Your task to perform on an android device: Go to display settings Image 0: 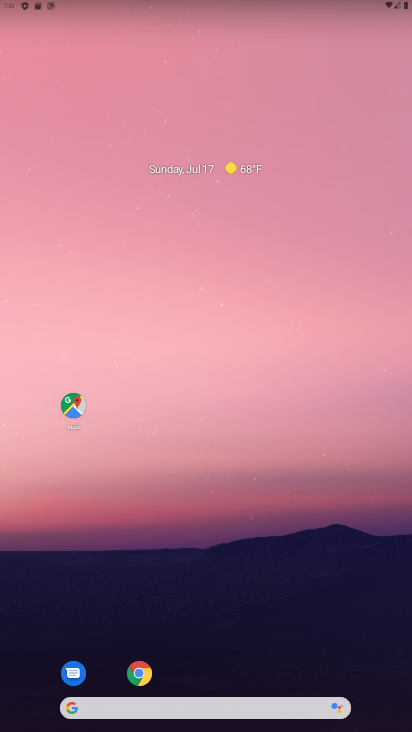
Step 0: drag from (221, 646) to (137, 258)
Your task to perform on an android device: Go to display settings Image 1: 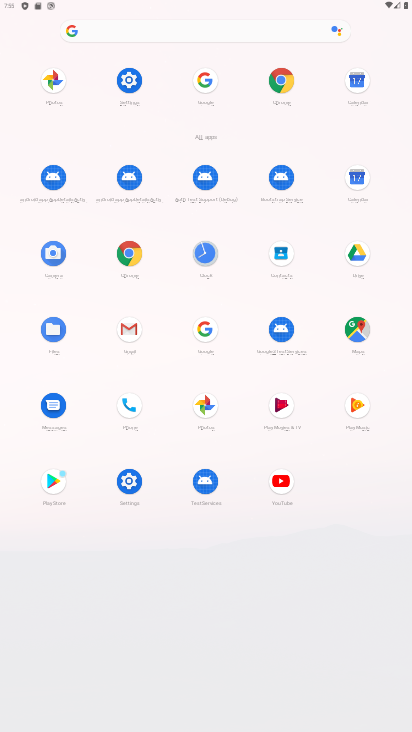
Step 1: click (126, 95)
Your task to perform on an android device: Go to display settings Image 2: 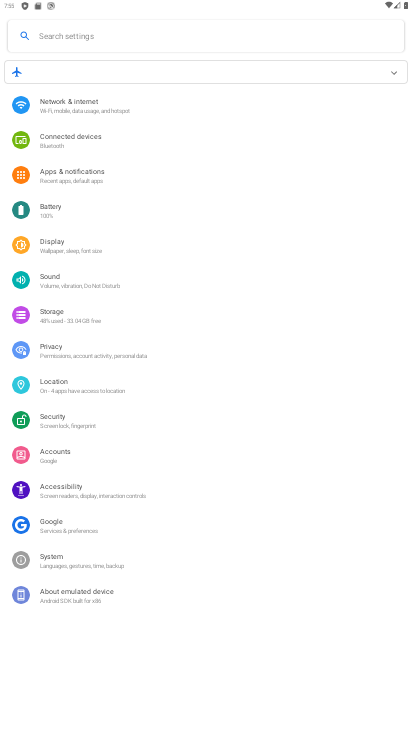
Step 2: click (82, 240)
Your task to perform on an android device: Go to display settings Image 3: 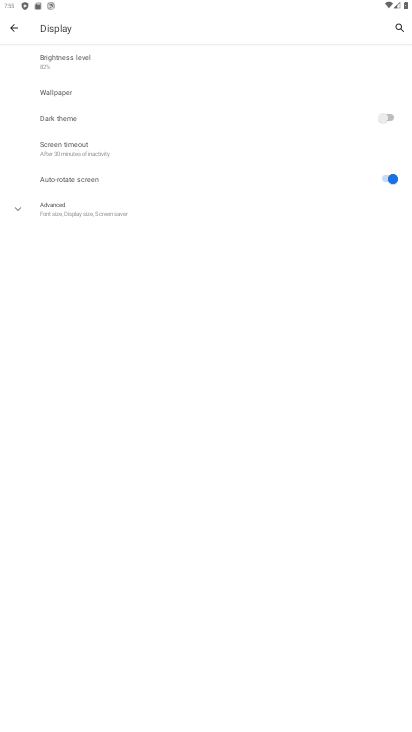
Step 3: task complete